Your task to perform on an android device: set an alarm Image 0: 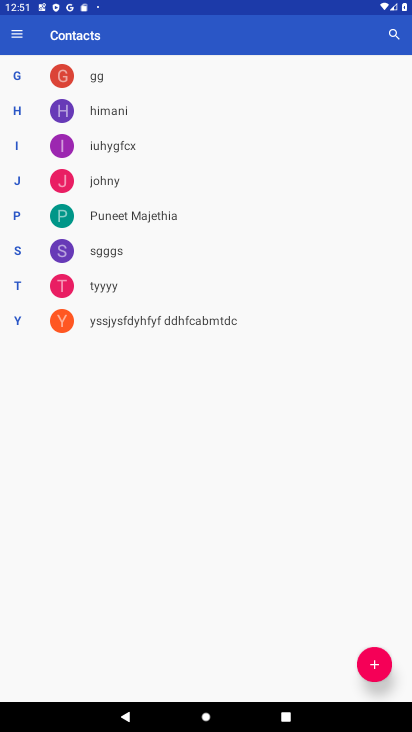
Step 0: press home button
Your task to perform on an android device: set an alarm Image 1: 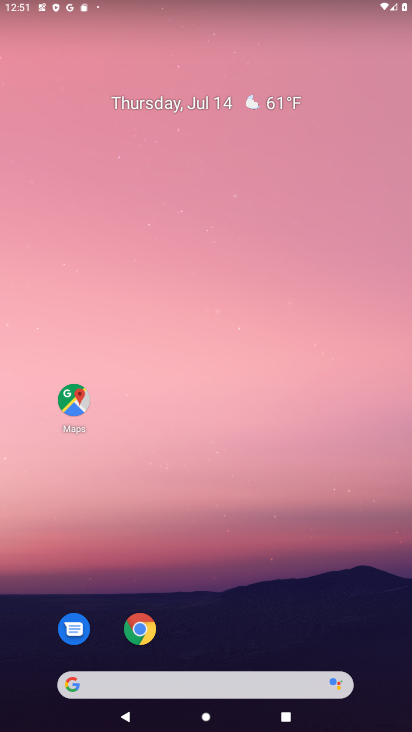
Step 1: drag from (185, 637) to (285, 10)
Your task to perform on an android device: set an alarm Image 2: 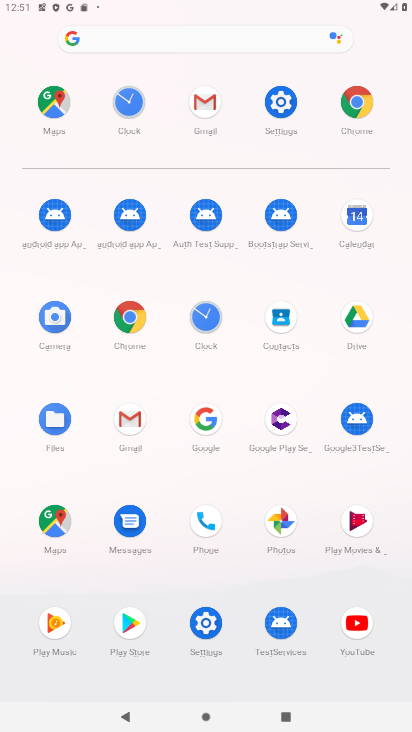
Step 2: click (208, 341)
Your task to perform on an android device: set an alarm Image 3: 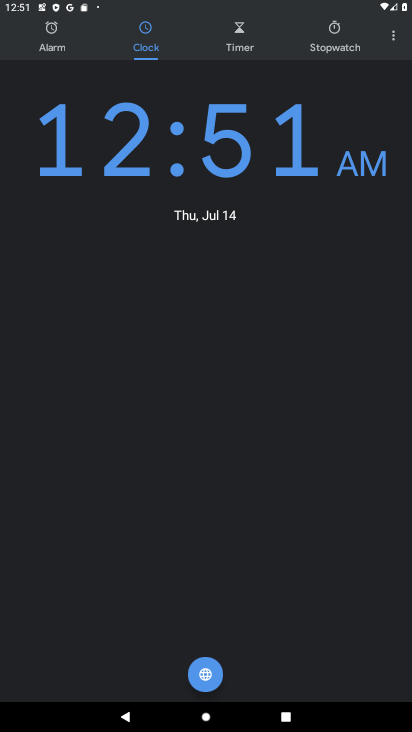
Step 3: click (55, 52)
Your task to perform on an android device: set an alarm Image 4: 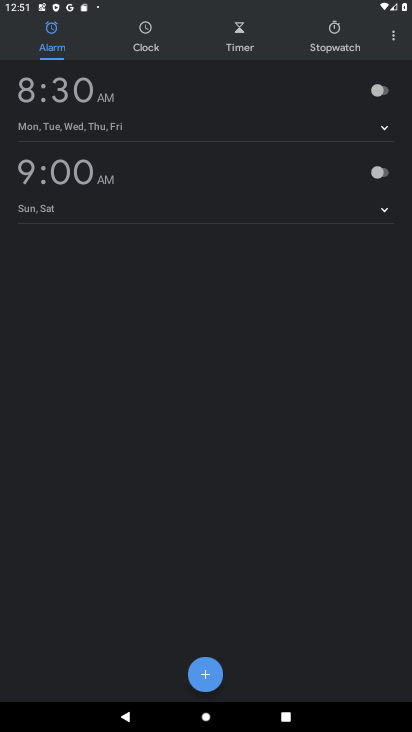
Step 4: click (388, 175)
Your task to perform on an android device: set an alarm Image 5: 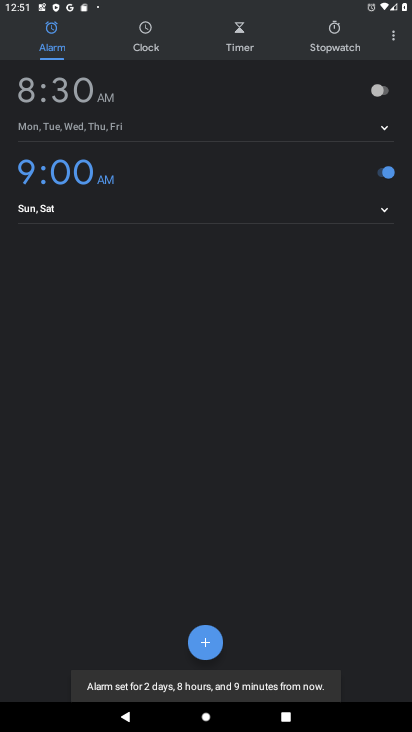
Step 5: task complete